Your task to perform on an android device: change the clock display to analog Image 0: 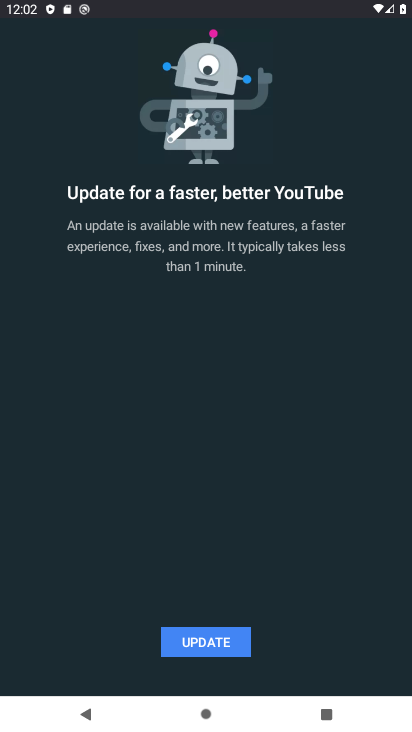
Step 0: press home button
Your task to perform on an android device: change the clock display to analog Image 1: 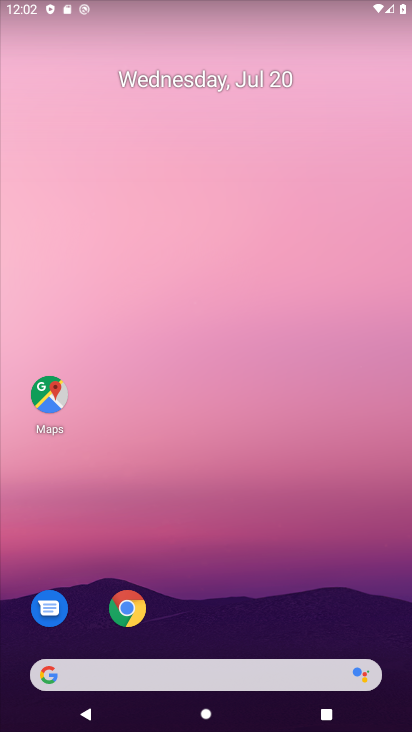
Step 1: drag from (187, 675) to (283, 96)
Your task to perform on an android device: change the clock display to analog Image 2: 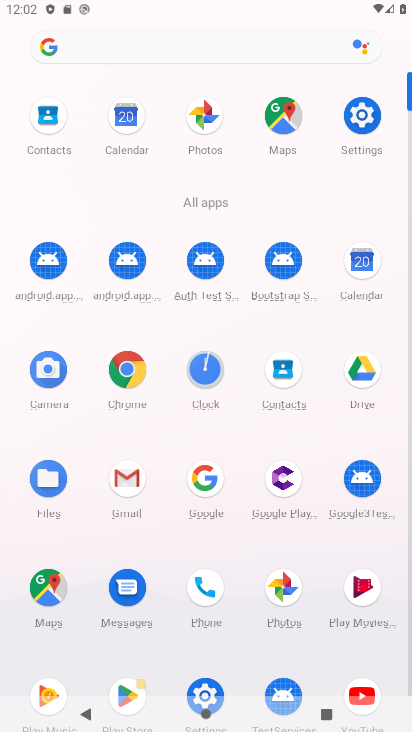
Step 2: click (207, 371)
Your task to perform on an android device: change the clock display to analog Image 3: 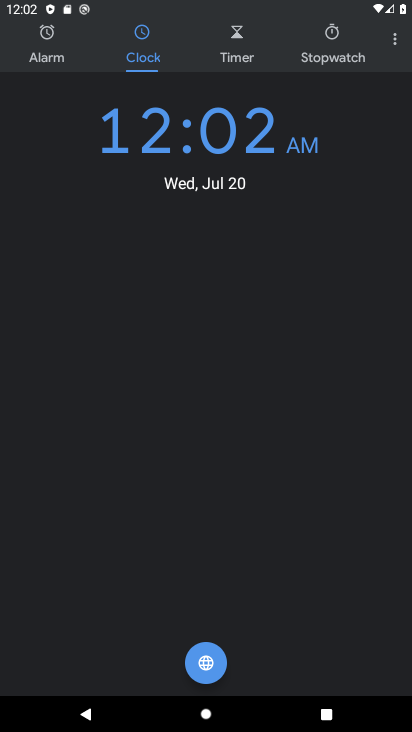
Step 3: click (397, 40)
Your task to perform on an android device: change the clock display to analog Image 4: 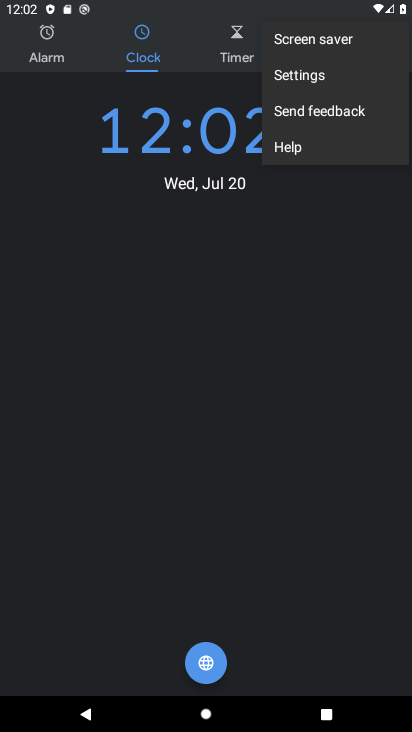
Step 4: click (312, 77)
Your task to perform on an android device: change the clock display to analog Image 5: 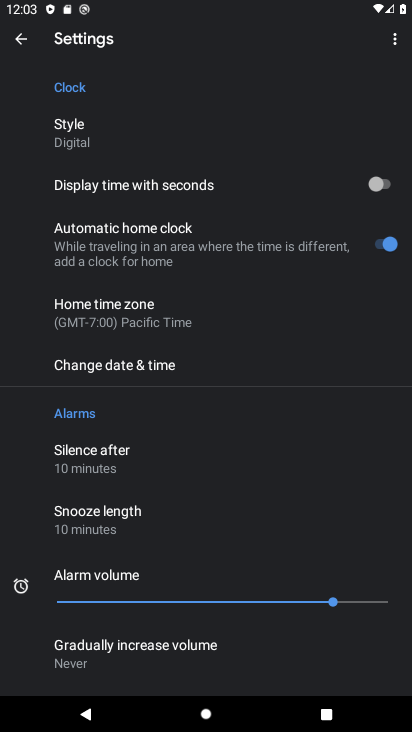
Step 5: click (81, 126)
Your task to perform on an android device: change the clock display to analog Image 6: 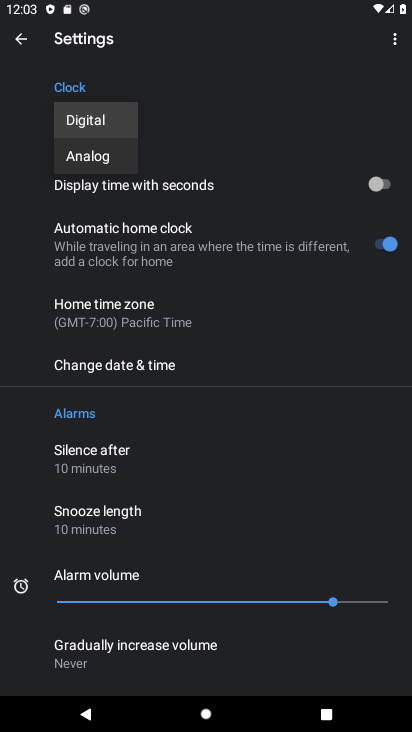
Step 6: click (89, 158)
Your task to perform on an android device: change the clock display to analog Image 7: 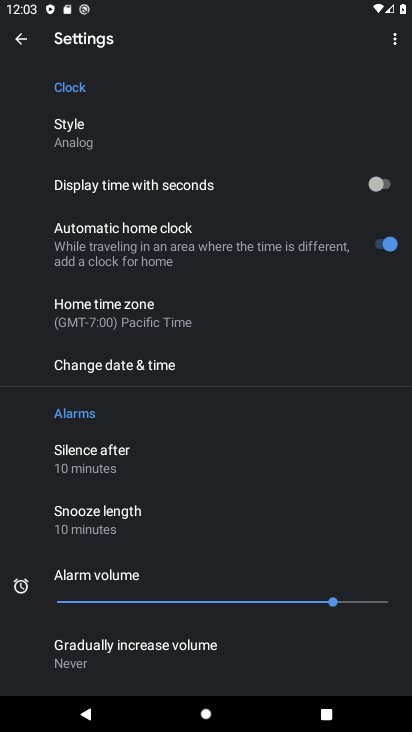
Step 7: task complete